Your task to perform on an android device: check battery use Image 0: 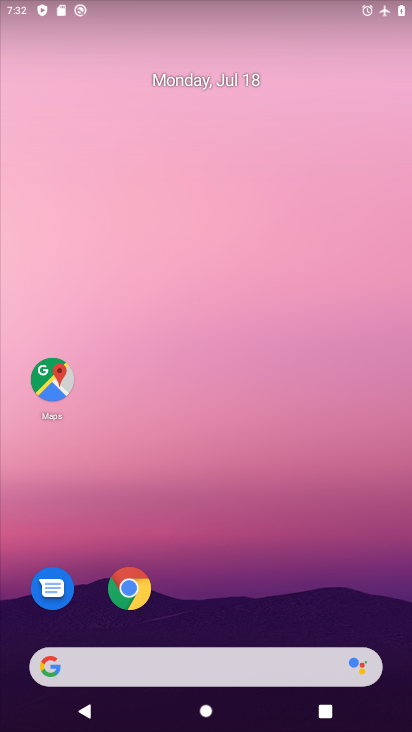
Step 0: drag from (213, 619) to (249, 174)
Your task to perform on an android device: check battery use Image 1: 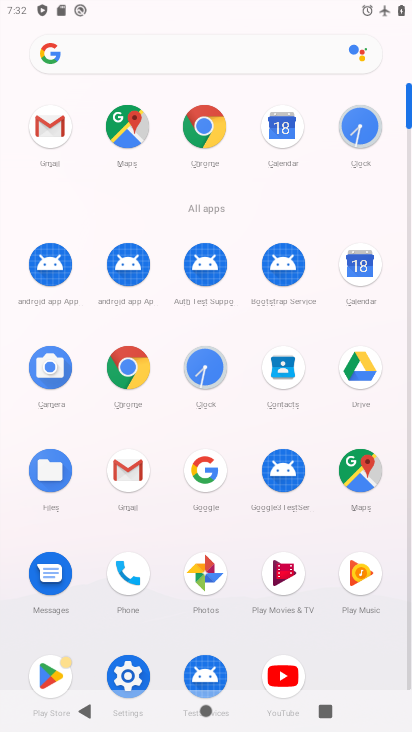
Step 1: click (128, 665)
Your task to perform on an android device: check battery use Image 2: 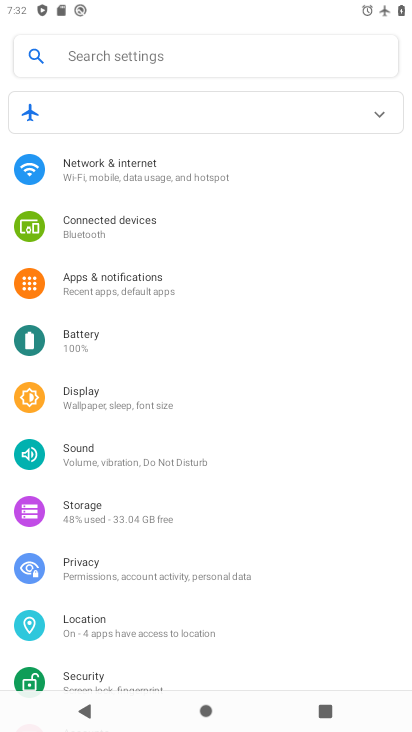
Step 2: click (126, 349)
Your task to perform on an android device: check battery use Image 3: 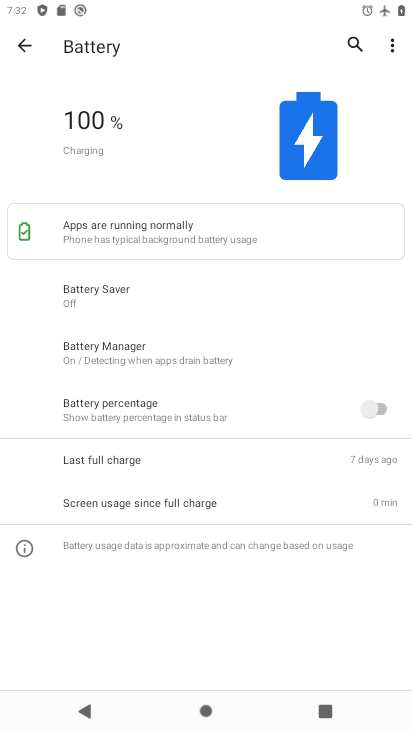
Step 3: click (390, 44)
Your task to perform on an android device: check battery use Image 4: 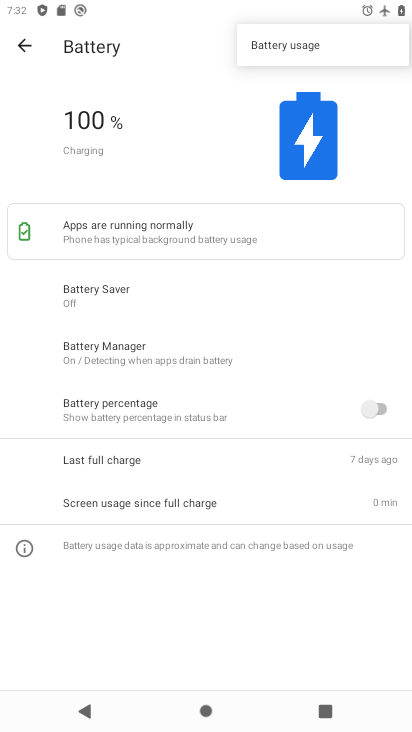
Step 4: click (321, 46)
Your task to perform on an android device: check battery use Image 5: 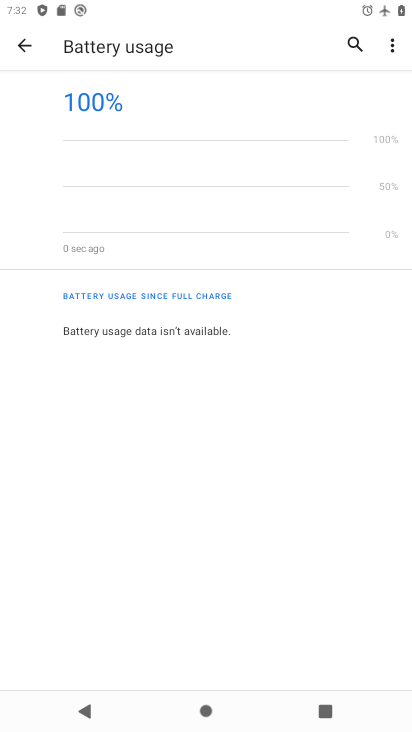
Step 5: task complete